Your task to perform on an android device: Go to network settings Image 0: 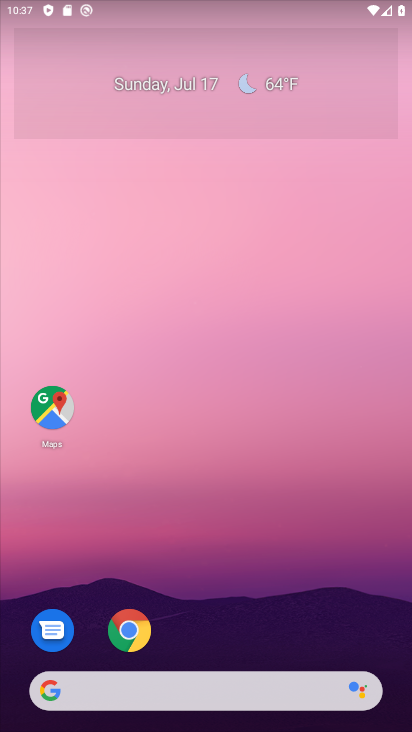
Step 0: drag from (374, 634) to (311, 200)
Your task to perform on an android device: Go to network settings Image 1: 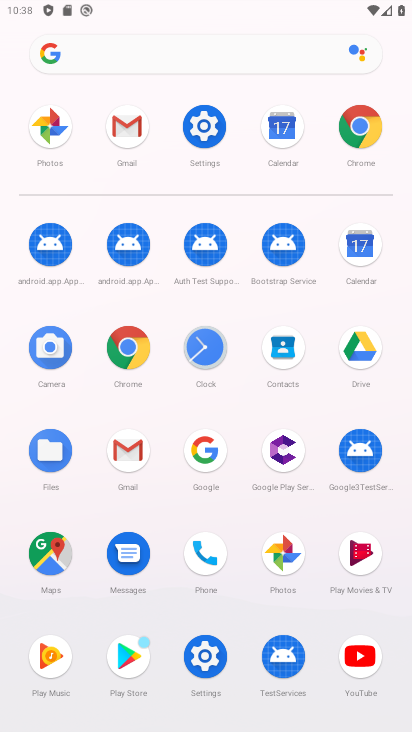
Step 1: click (205, 653)
Your task to perform on an android device: Go to network settings Image 2: 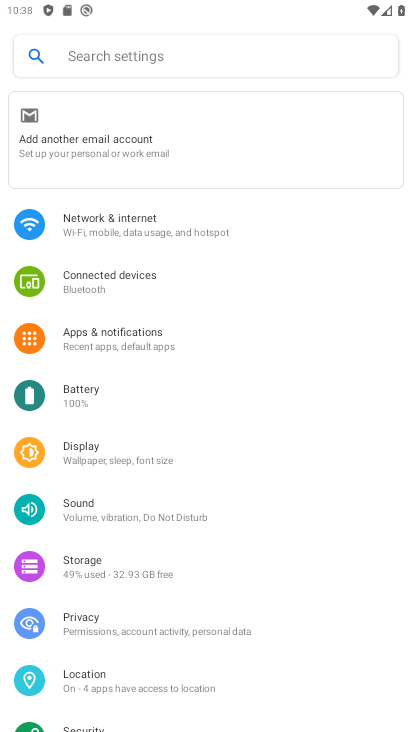
Step 2: click (89, 217)
Your task to perform on an android device: Go to network settings Image 3: 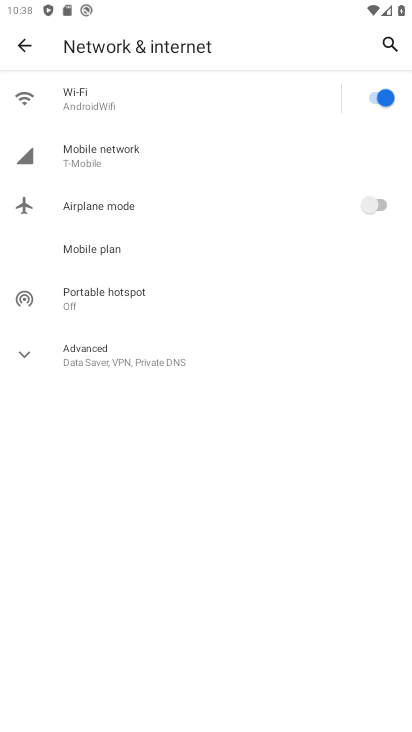
Step 3: click (16, 353)
Your task to perform on an android device: Go to network settings Image 4: 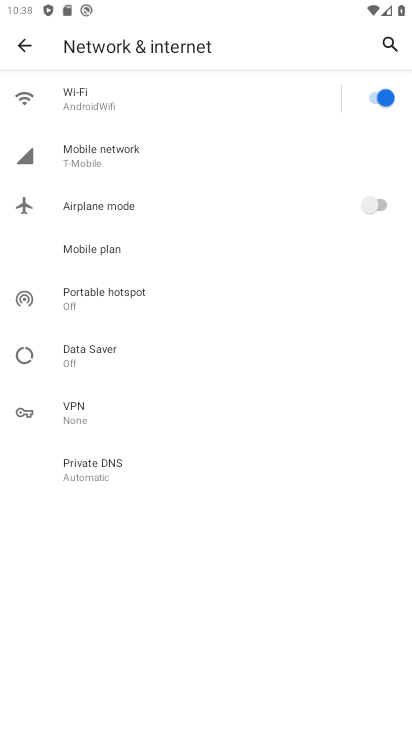
Step 4: click (93, 153)
Your task to perform on an android device: Go to network settings Image 5: 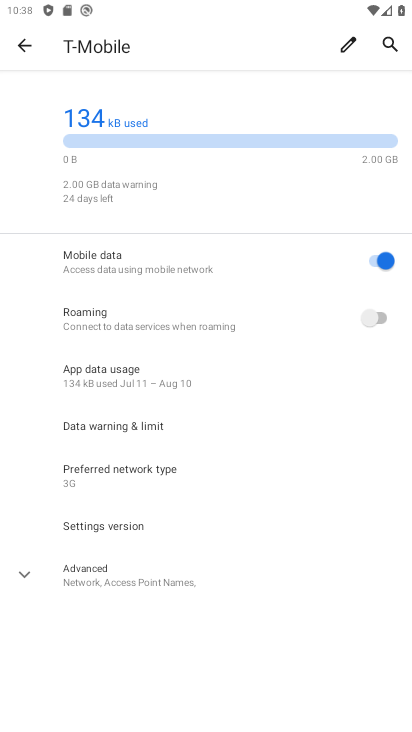
Step 5: task complete